Your task to perform on an android device: Check the news Image 0: 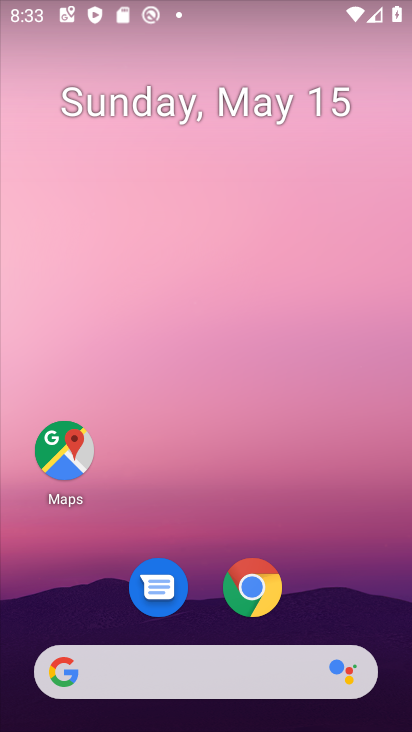
Step 0: drag from (381, 624) to (342, 27)
Your task to perform on an android device: Check the news Image 1: 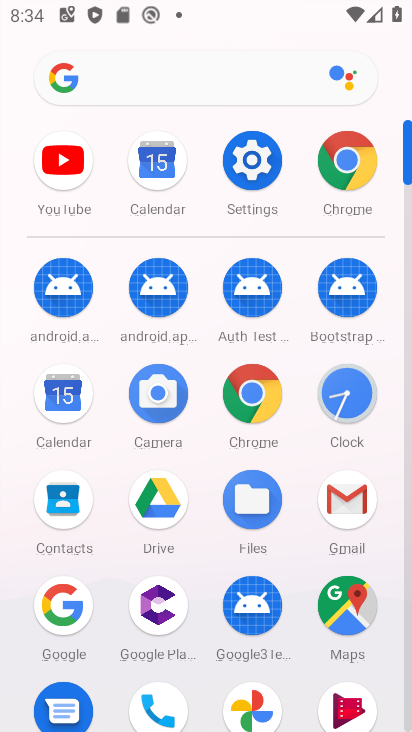
Step 1: click (267, 413)
Your task to perform on an android device: Check the news Image 2: 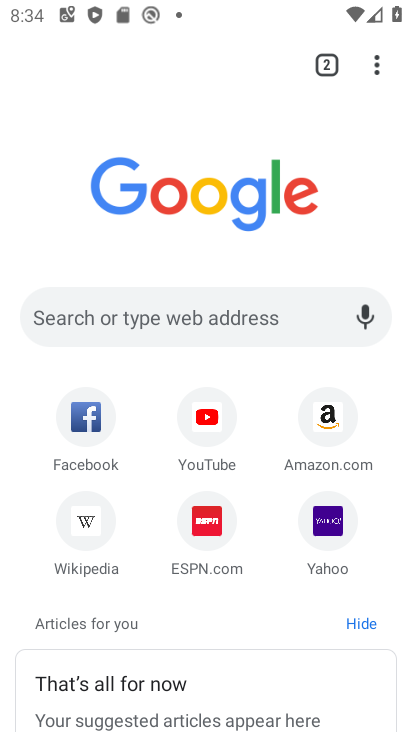
Step 2: drag from (255, 617) to (330, 113)
Your task to perform on an android device: Check the news Image 3: 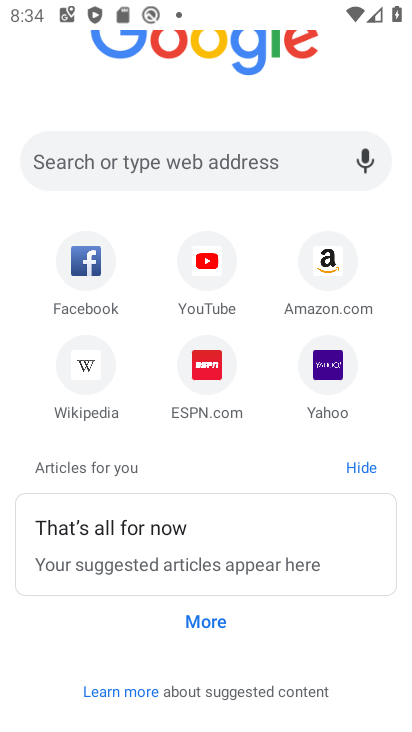
Step 3: click (214, 618)
Your task to perform on an android device: Check the news Image 4: 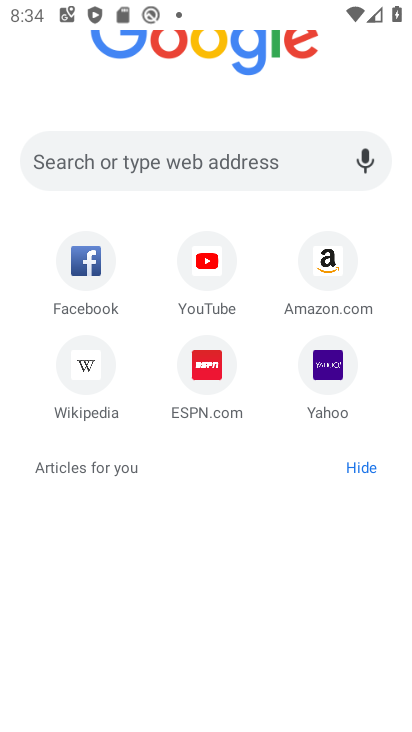
Step 4: click (214, 618)
Your task to perform on an android device: Check the news Image 5: 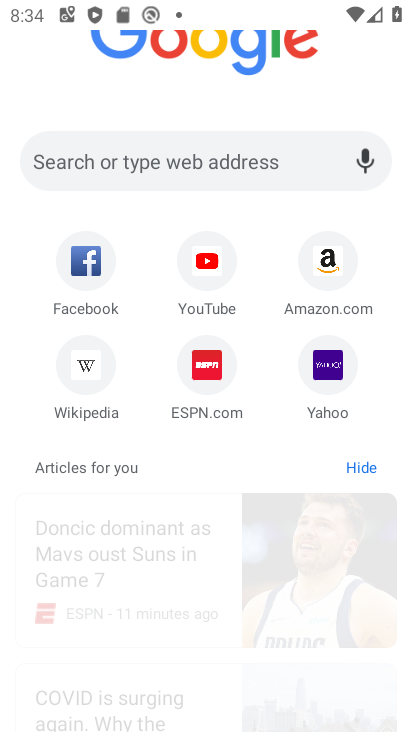
Step 5: task complete